Your task to perform on an android device: Set the phone to "Do not disturb". Image 0: 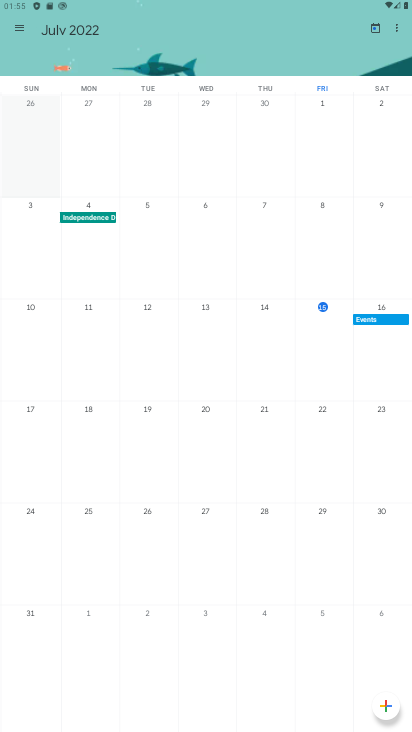
Step 0: press home button
Your task to perform on an android device: Set the phone to "Do not disturb". Image 1: 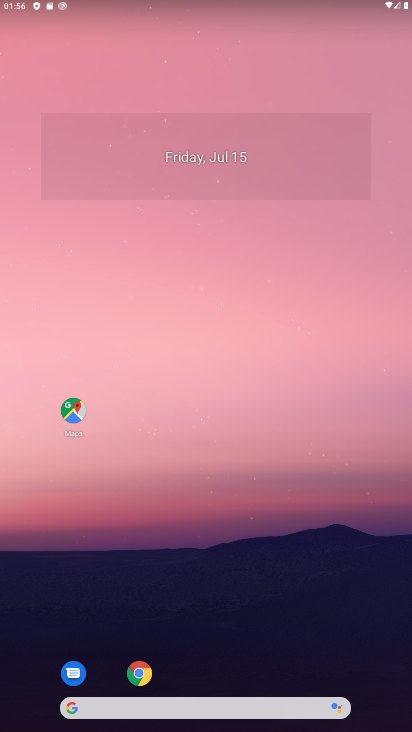
Step 1: drag from (361, 602) to (386, 80)
Your task to perform on an android device: Set the phone to "Do not disturb". Image 2: 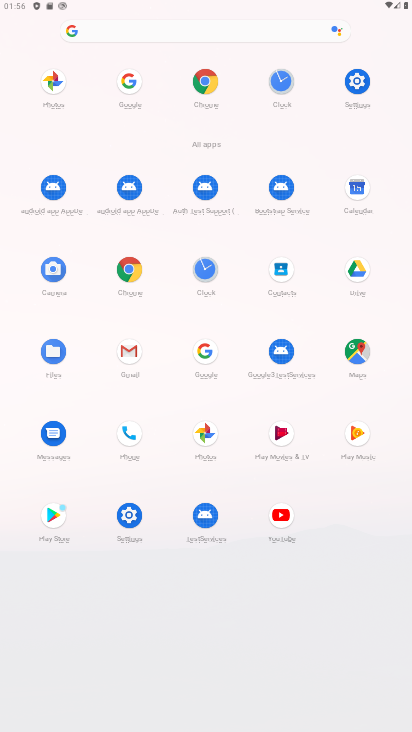
Step 2: click (366, 78)
Your task to perform on an android device: Set the phone to "Do not disturb". Image 3: 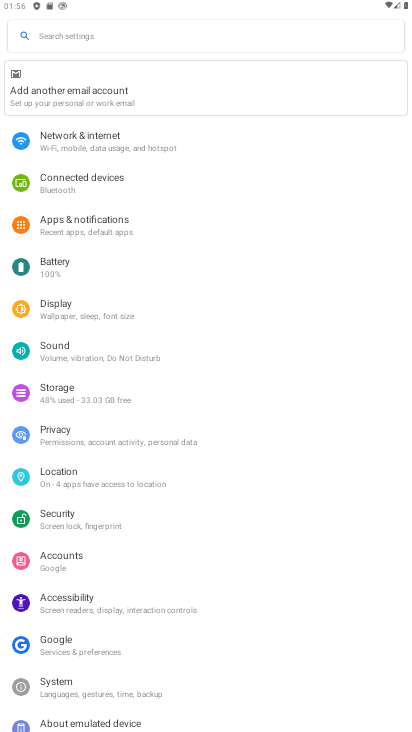
Step 3: click (141, 355)
Your task to perform on an android device: Set the phone to "Do not disturb". Image 4: 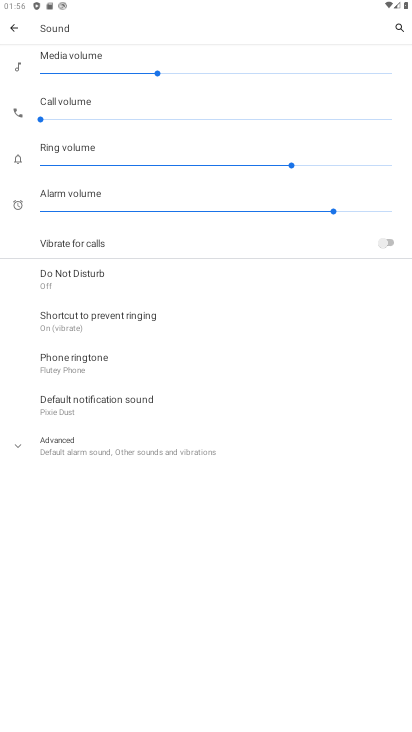
Step 4: click (49, 275)
Your task to perform on an android device: Set the phone to "Do not disturb". Image 5: 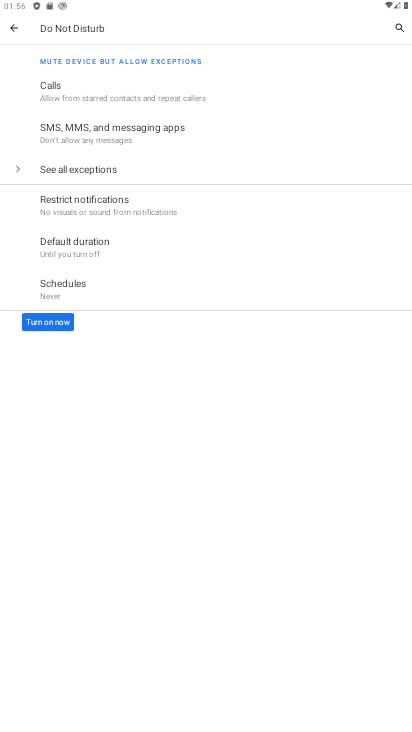
Step 5: click (64, 308)
Your task to perform on an android device: Set the phone to "Do not disturb". Image 6: 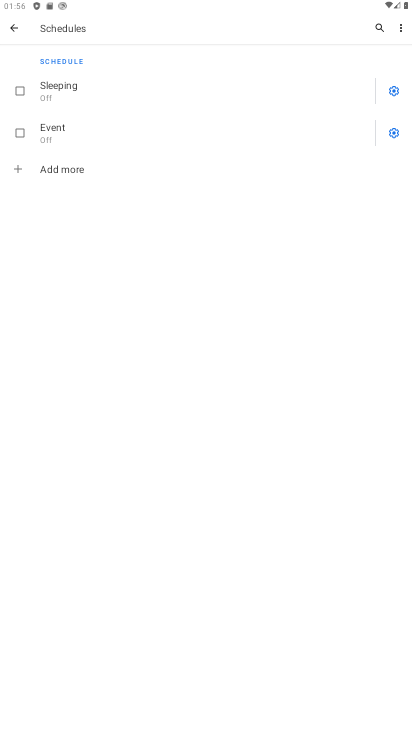
Step 6: task complete